Your task to perform on an android device: Set the phone to "Do not disturb". Image 0: 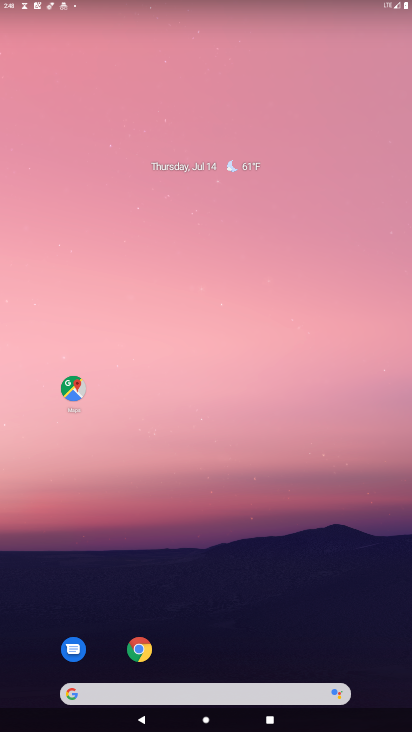
Step 0: drag from (246, 608) to (241, 65)
Your task to perform on an android device: Set the phone to "Do not disturb". Image 1: 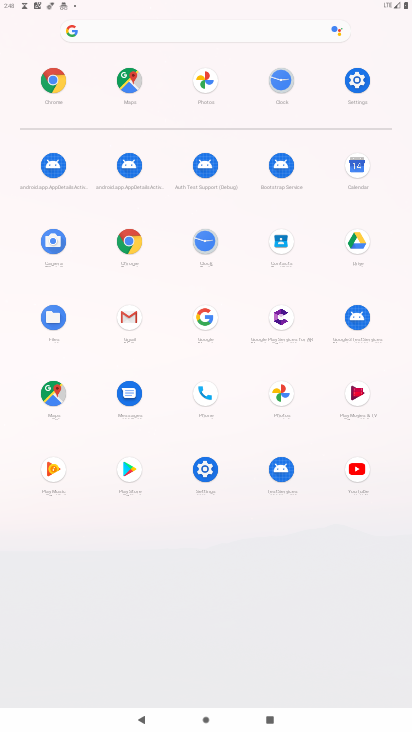
Step 1: click (363, 74)
Your task to perform on an android device: Set the phone to "Do not disturb". Image 2: 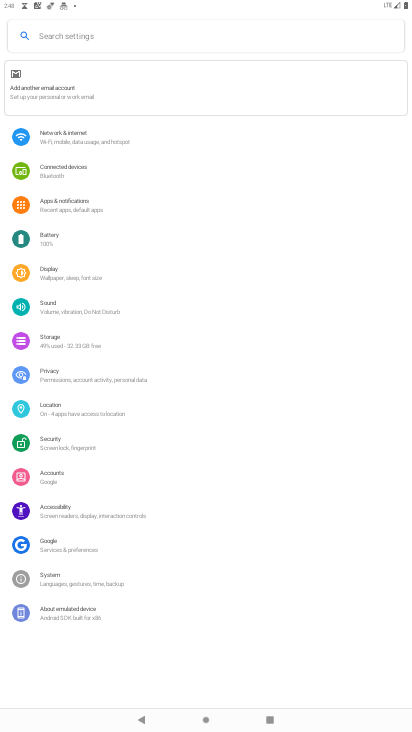
Step 2: click (69, 309)
Your task to perform on an android device: Set the phone to "Do not disturb". Image 3: 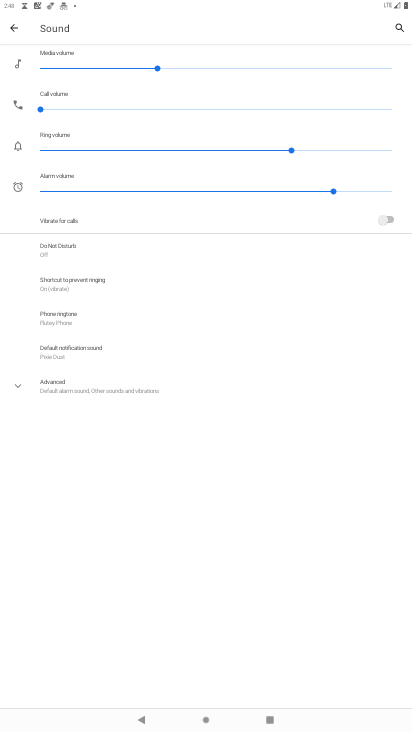
Step 3: click (77, 250)
Your task to perform on an android device: Set the phone to "Do not disturb". Image 4: 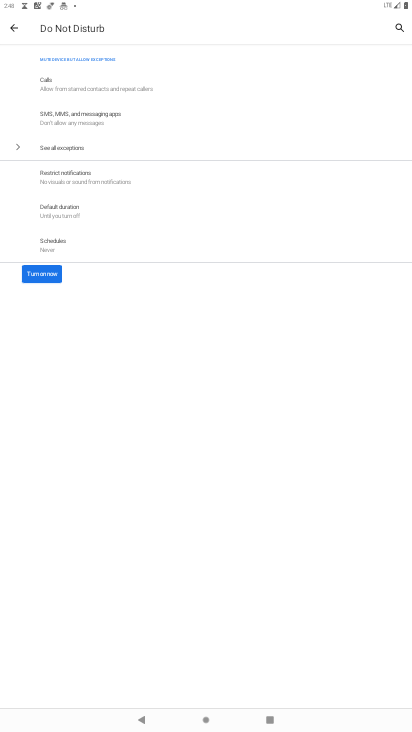
Step 4: click (46, 277)
Your task to perform on an android device: Set the phone to "Do not disturb". Image 5: 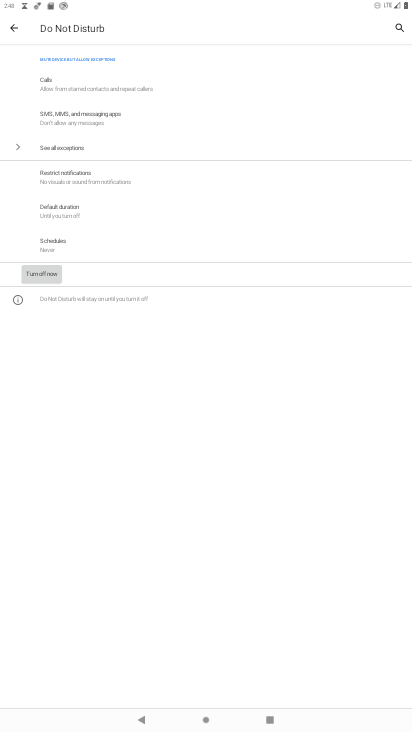
Step 5: task complete